Your task to perform on an android device: Go to notification settings Image 0: 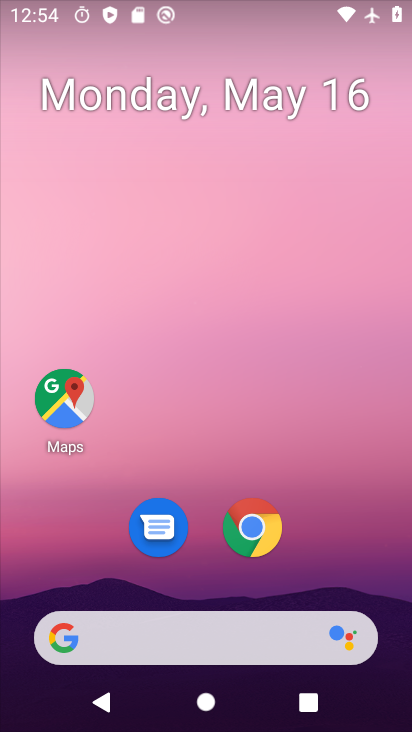
Step 0: drag from (189, 610) to (405, 187)
Your task to perform on an android device: Go to notification settings Image 1: 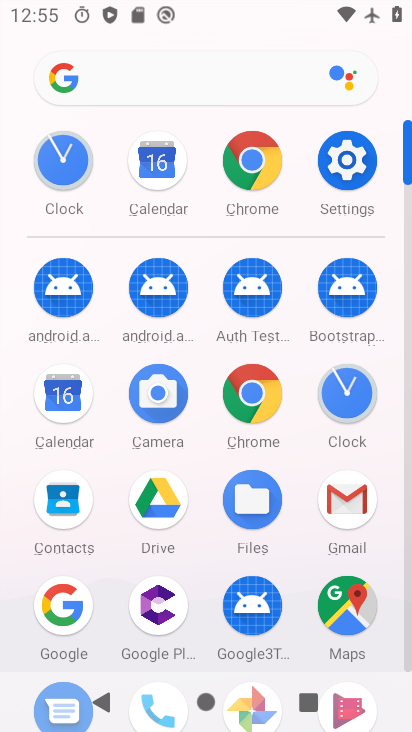
Step 1: click (345, 169)
Your task to perform on an android device: Go to notification settings Image 2: 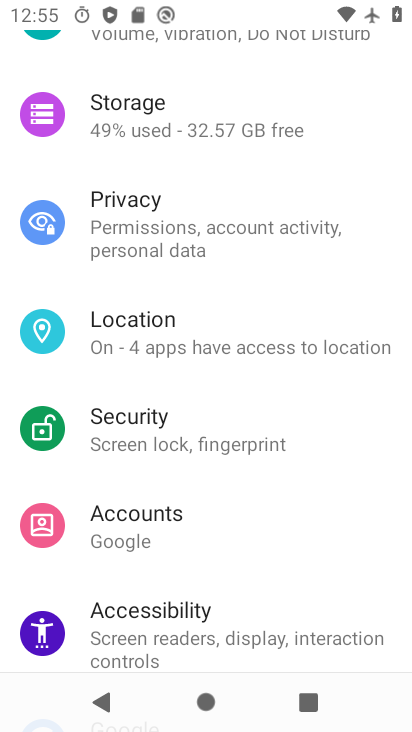
Step 2: drag from (330, 115) to (176, 635)
Your task to perform on an android device: Go to notification settings Image 3: 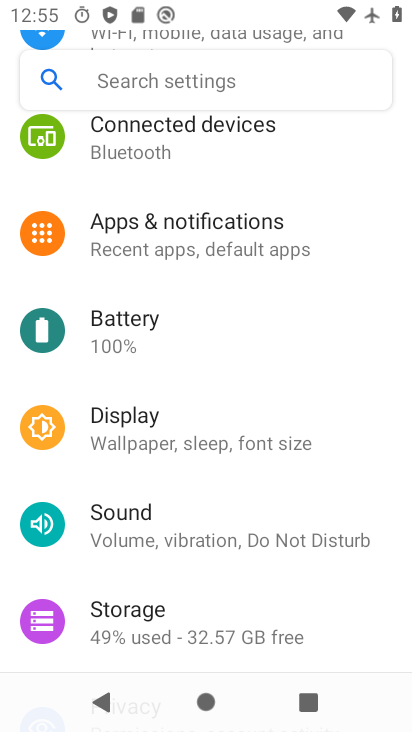
Step 3: click (247, 237)
Your task to perform on an android device: Go to notification settings Image 4: 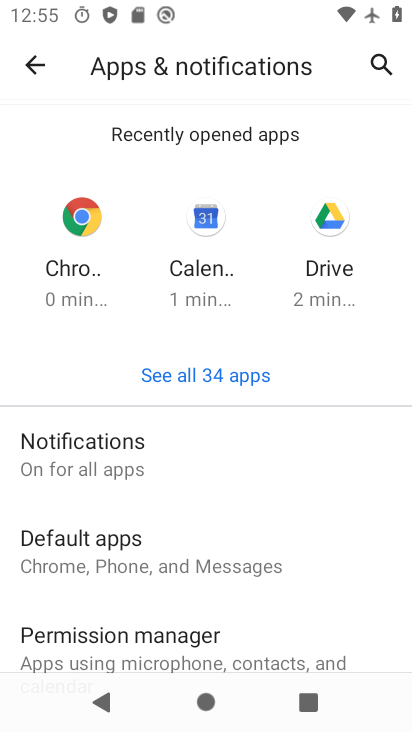
Step 4: click (102, 446)
Your task to perform on an android device: Go to notification settings Image 5: 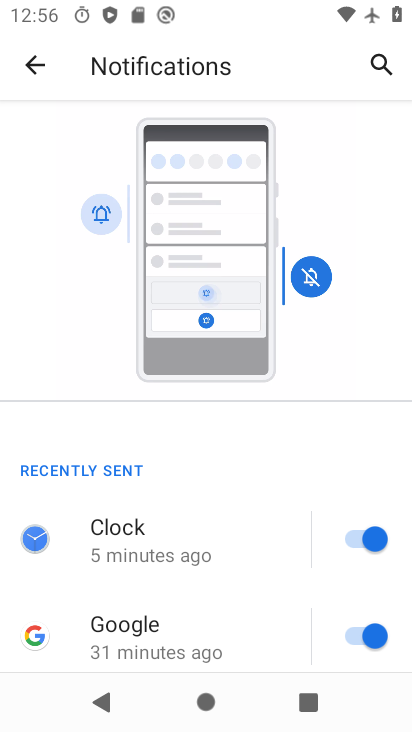
Step 5: task complete